Your task to perform on an android device: Open Youtube and go to the subscriptions tab Image 0: 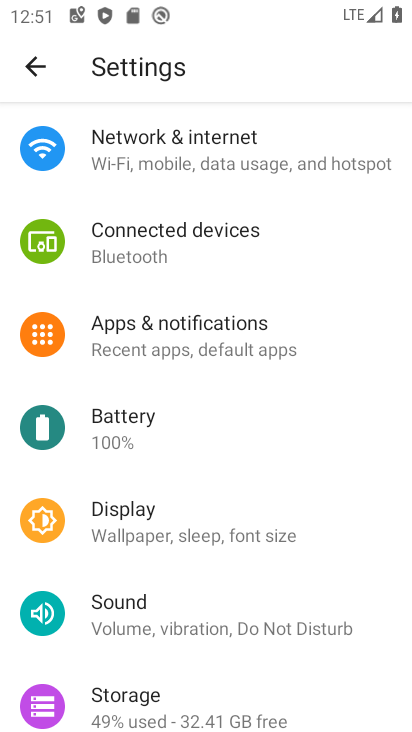
Step 0: press home button
Your task to perform on an android device: Open Youtube and go to the subscriptions tab Image 1: 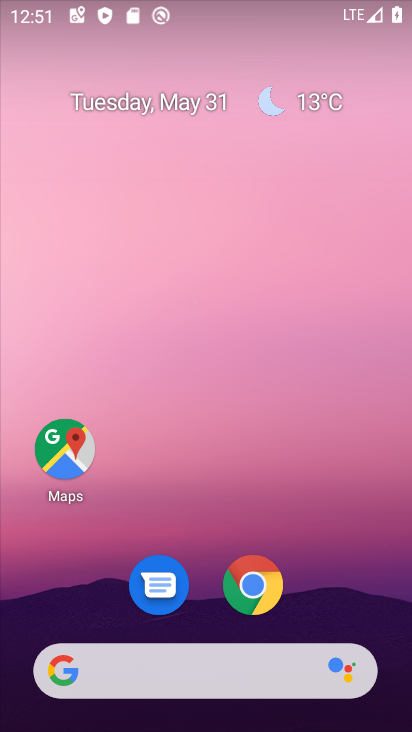
Step 1: drag from (312, 542) to (230, 29)
Your task to perform on an android device: Open Youtube and go to the subscriptions tab Image 2: 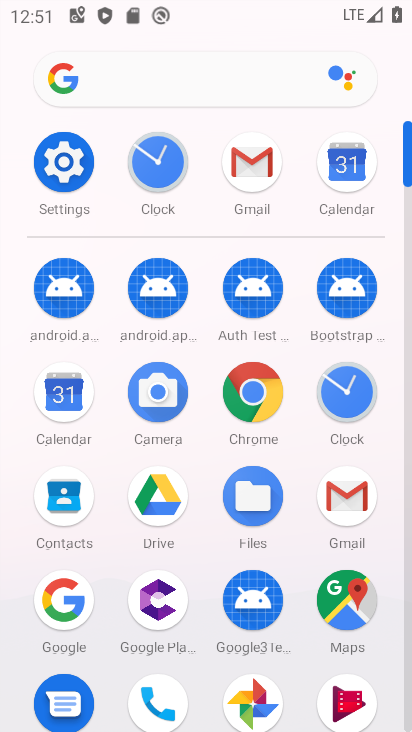
Step 2: drag from (204, 578) to (206, 293)
Your task to perform on an android device: Open Youtube and go to the subscriptions tab Image 3: 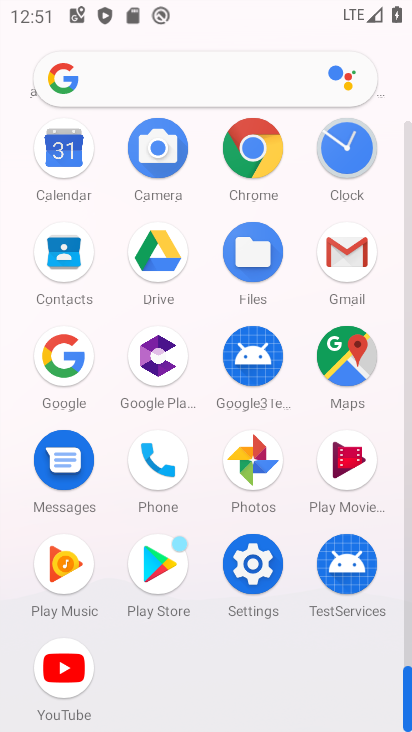
Step 3: click (69, 660)
Your task to perform on an android device: Open Youtube and go to the subscriptions tab Image 4: 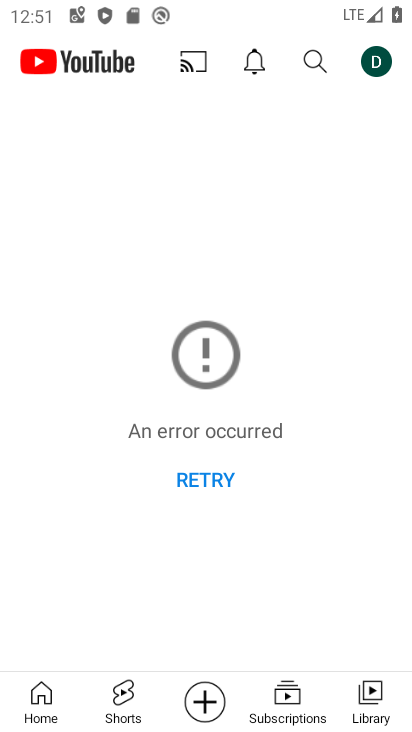
Step 4: click (272, 692)
Your task to perform on an android device: Open Youtube and go to the subscriptions tab Image 5: 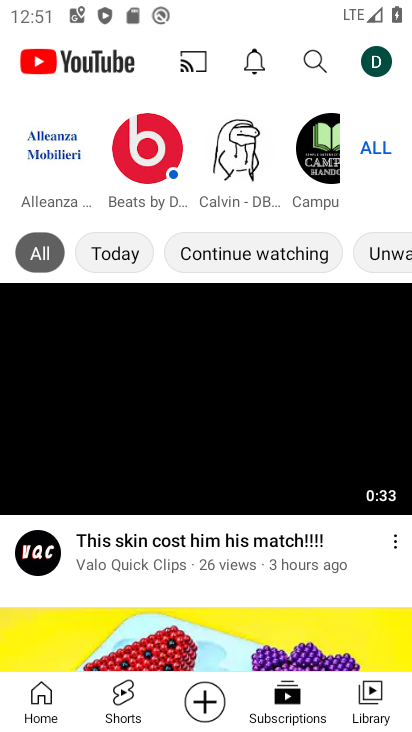
Step 5: task complete